Your task to perform on an android device: check android version Image 0: 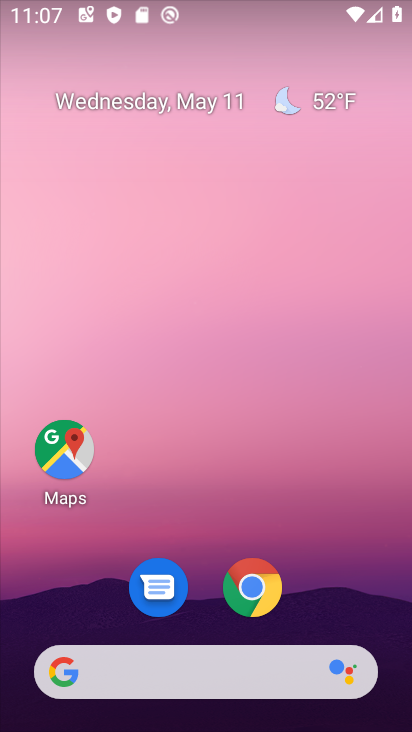
Step 0: drag from (216, 685) to (162, 298)
Your task to perform on an android device: check android version Image 1: 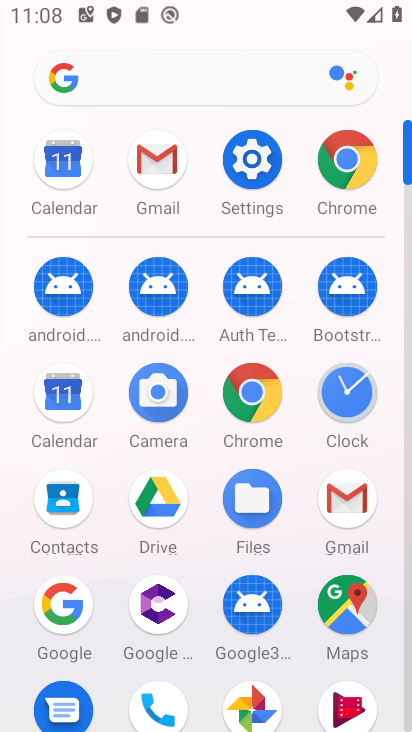
Step 1: click (220, 176)
Your task to perform on an android device: check android version Image 2: 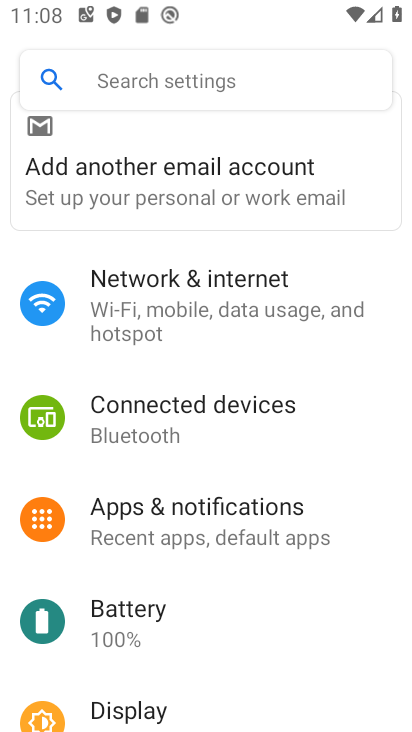
Step 2: click (140, 88)
Your task to perform on an android device: check android version Image 3: 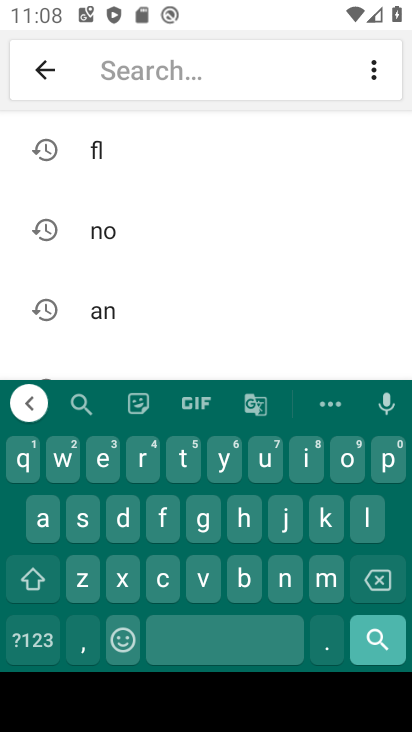
Step 3: click (89, 316)
Your task to perform on an android device: check android version Image 4: 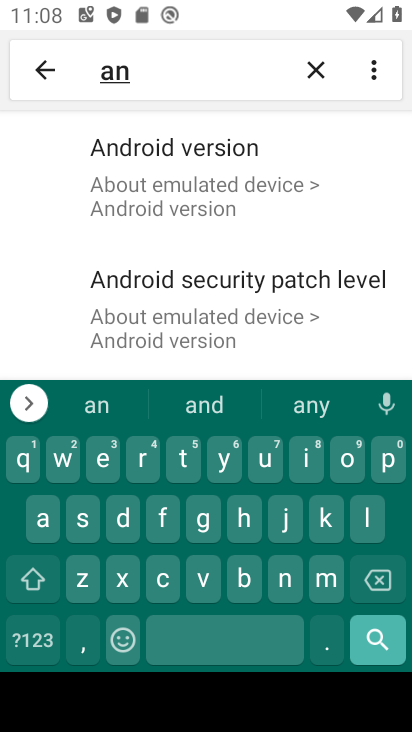
Step 4: click (187, 175)
Your task to perform on an android device: check android version Image 5: 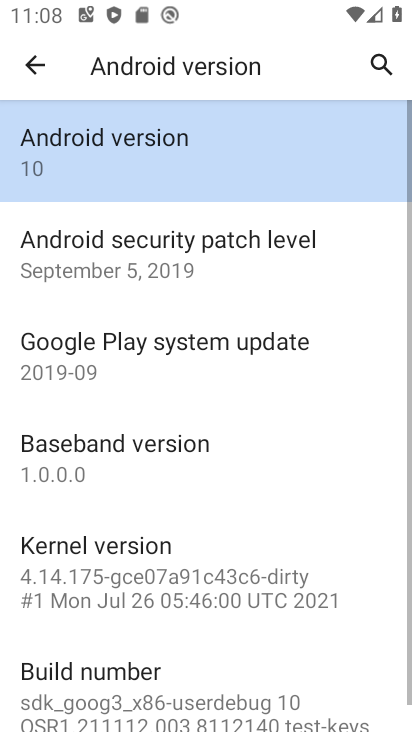
Step 5: click (204, 149)
Your task to perform on an android device: check android version Image 6: 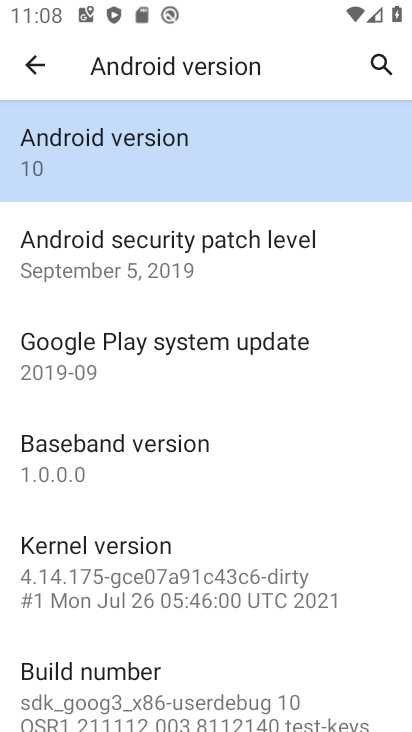
Step 6: click (189, 156)
Your task to perform on an android device: check android version Image 7: 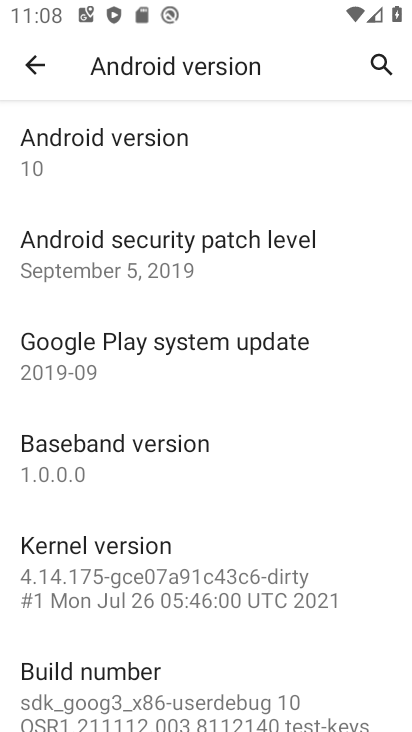
Step 7: task complete